Your task to perform on an android device: choose inbox layout in the gmail app Image 0: 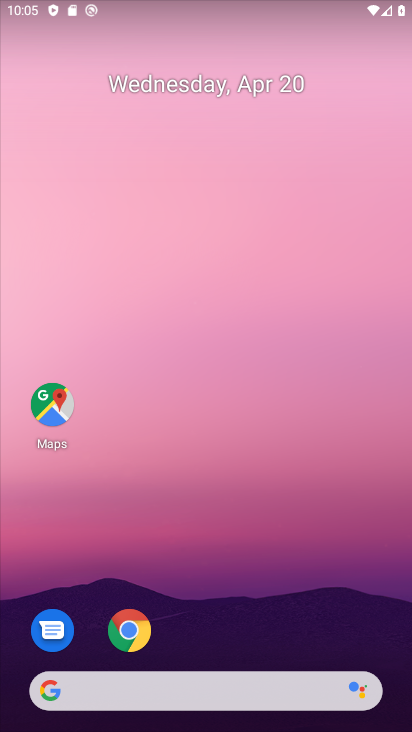
Step 0: drag from (319, 580) to (408, 79)
Your task to perform on an android device: choose inbox layout in the gmail app Image 1: 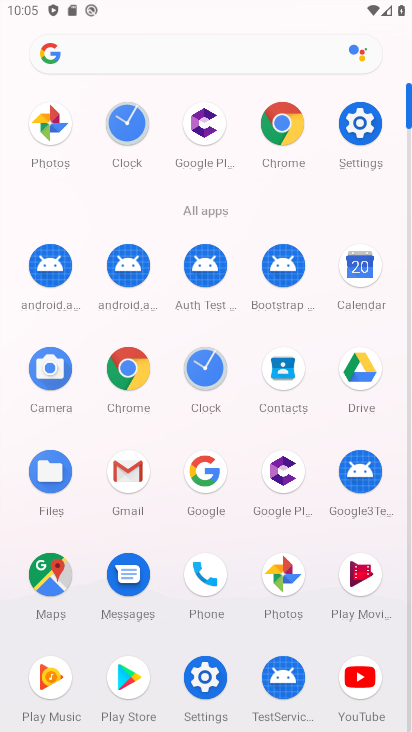
Step 1: click (133, 462)
Your task to perform on an android device: choose inbox layout in the gmail app Image 2: 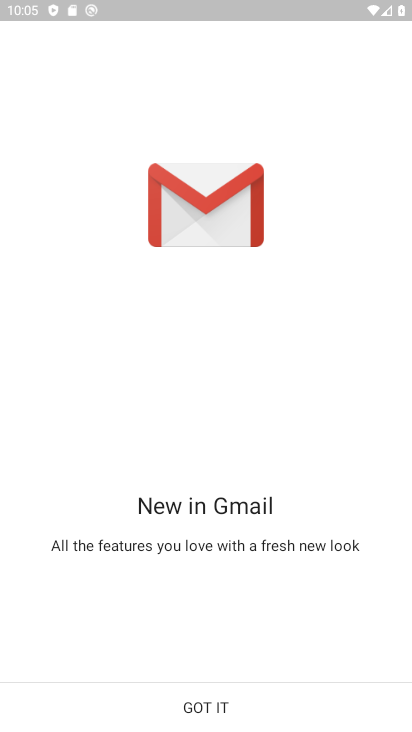
Step 2: click (187, 704)
Your task to perform on an android device: choose inbox layout in the gmail app Image 3: 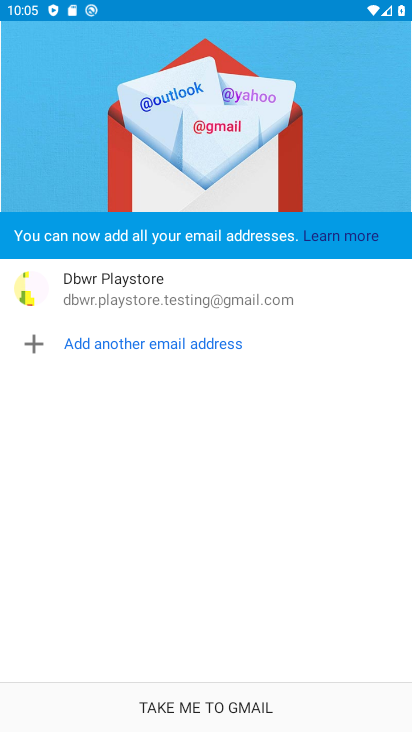
Step 3: click (131, 712)
Your task to perform on an android device: choose inbox layout in the gmail app Image 4: 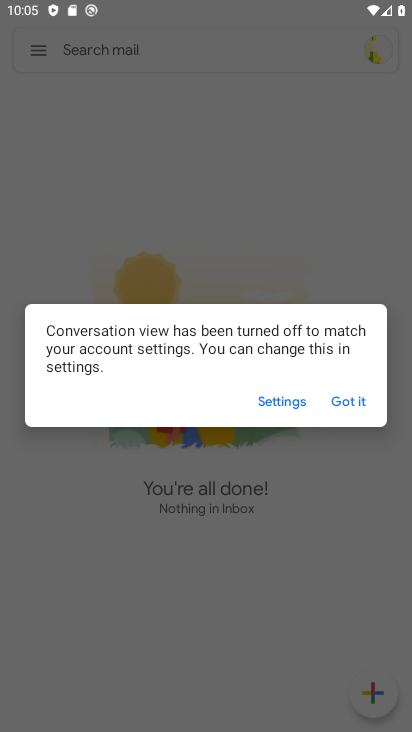
Step 4: click (366, 400)
Your task to perform on an android device: choose inbox layout in the gmail app Image 5: 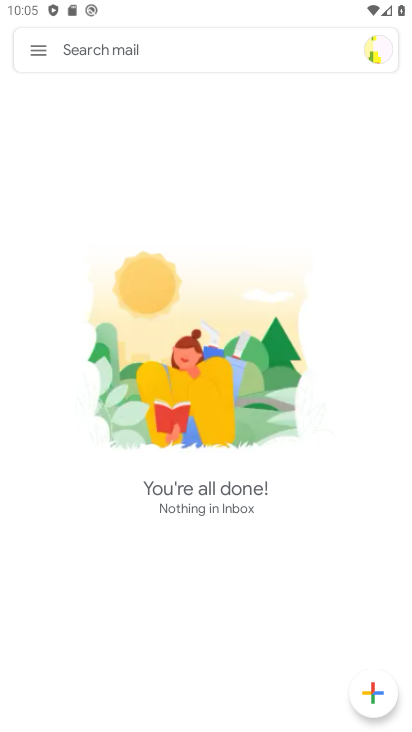
Step 5: click (42, 53)
Your task to perform on an android device: choose inbox layout in the gmail app Image 6: 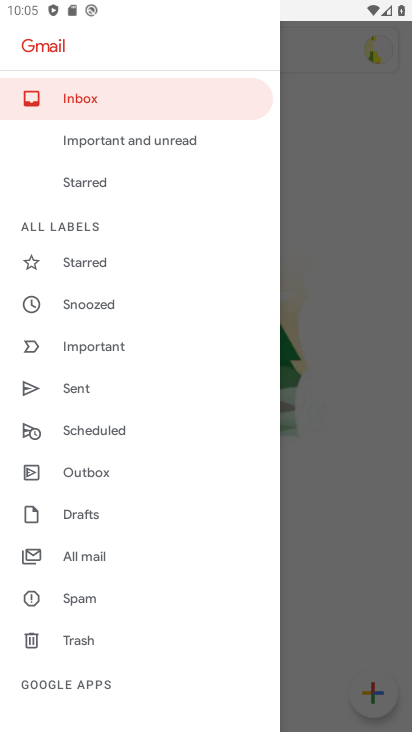
Step 6: drag from (135, 615) to (117, 120)
Your task to perform on an android device: choose inbox layout in the gmail app Image 7: 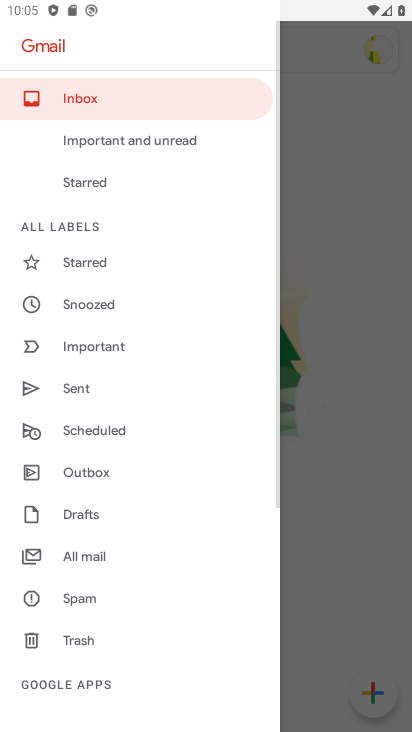
Step 7: drag from (126, 676) to (145, 176)
Your task to perform on an android device: choose inbox layout in the gmail app Image 8: 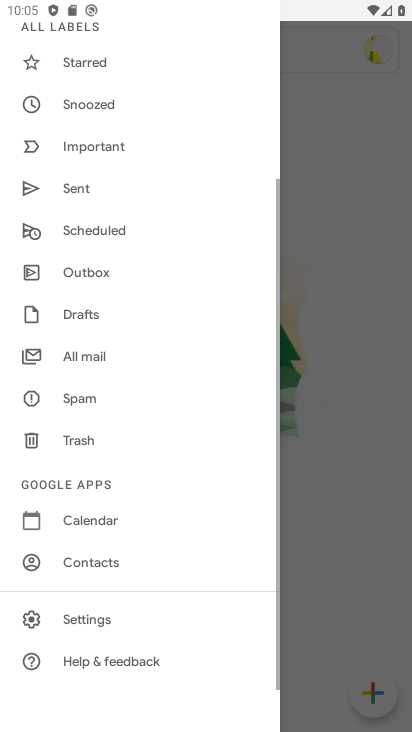
Step 8: click (73, 618)
Your task to perform on an android device: choose inbox layout in the gmail app Image 9: 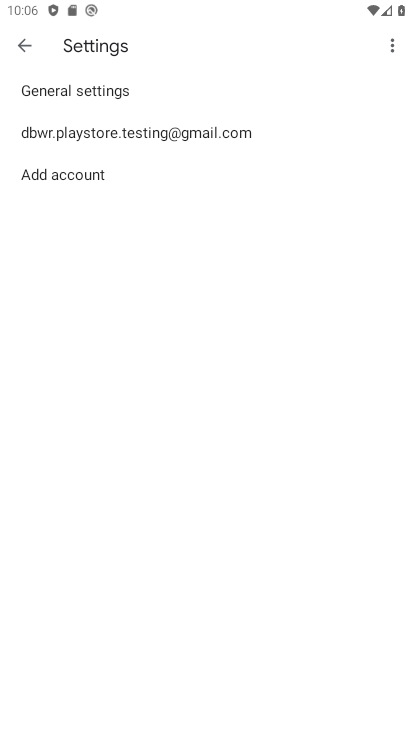
Step 9: click (123, 141)
Your task to perform on an android device: choose inbox layout in the gmail app Image 10: 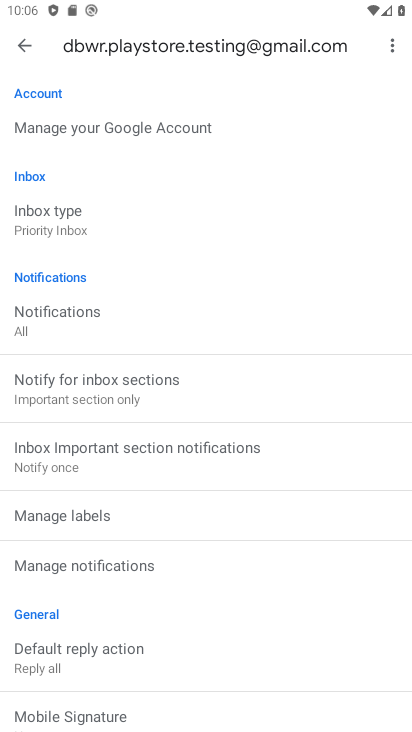
Step 10: click (79, 233)
Your task to perform on an android device: choose inbox layout in the gmail app Image 11: 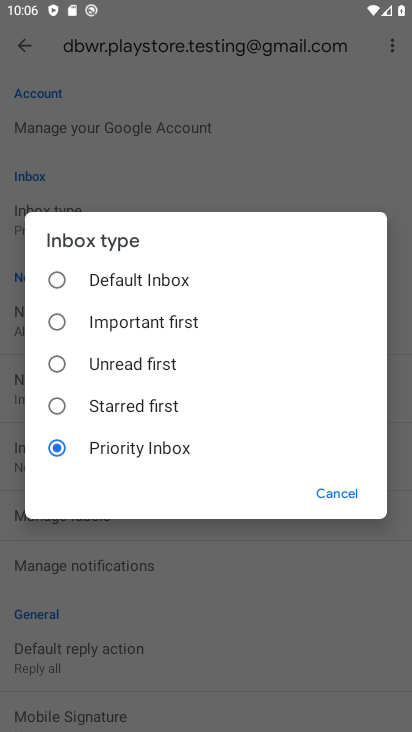
Step 11: click (53, 276)
Your task to perform on an android device: choose inbox layout in the gmail app Image 12: 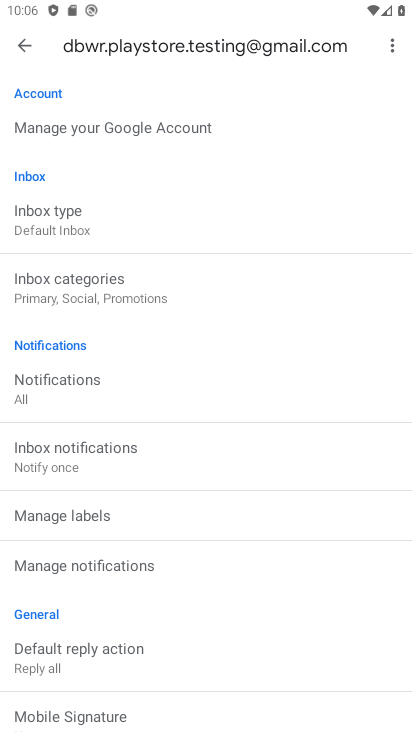
Step 12: task complete